Your task to perform on an android device: When is my next meeting? Image 0: 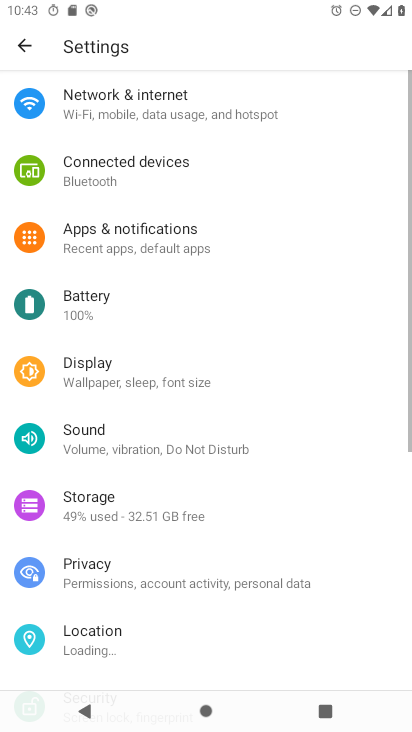
Step 0: press back button
Your task to perform on an android device: When is my next meeting? Image 1: 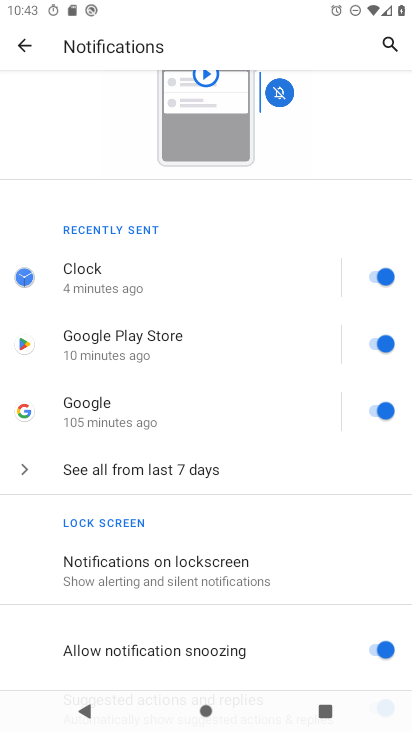
Step 1: press back button
Your task to perform on an android device: When is my next meeting? Image 2: 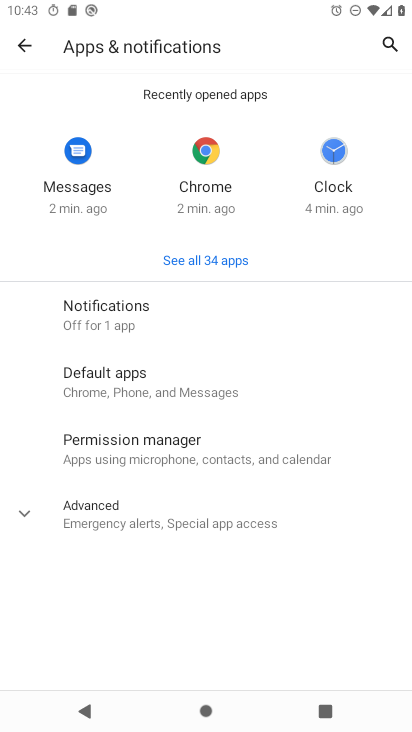
Step 2: press back button
Your task to perform on an android device: When is my next meeting? Image 3: 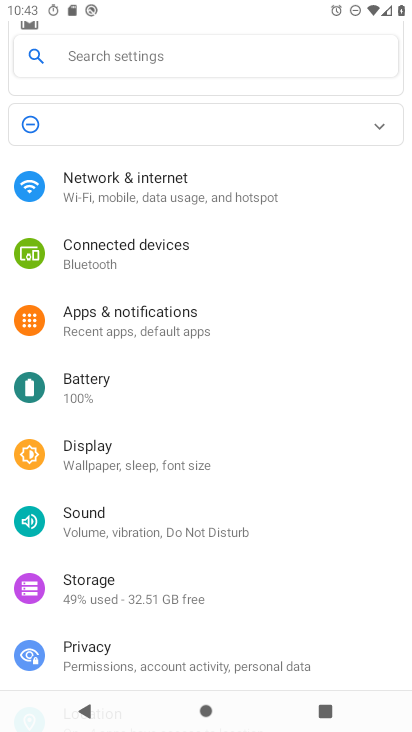
Step 3: press back button
Your task to perform on an android device: When is my next meeting? Image 4: 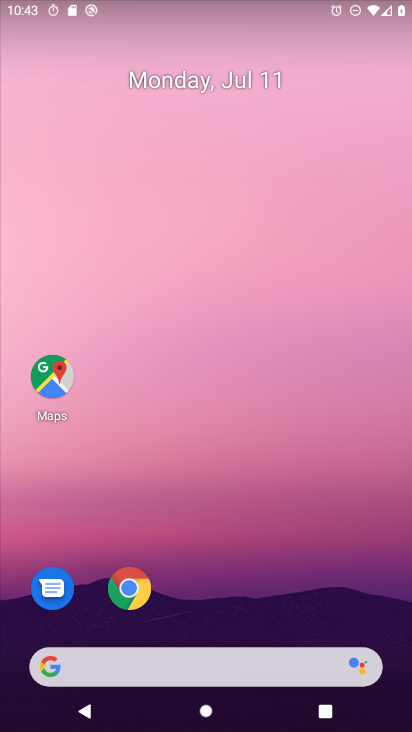
Step 4: drag from (234, 625) to (340, 49)
Your task to perform on an android device: When is my next meeting? Image 5: 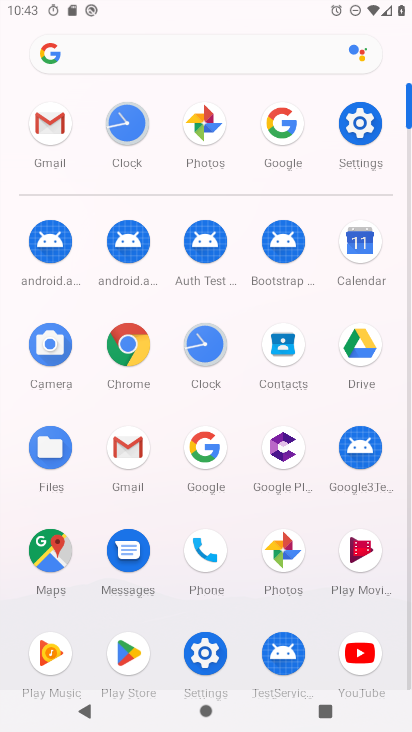
Step 5: click (375, 233)
Your task to perform on an android device: When is my next meeting? Image 6: 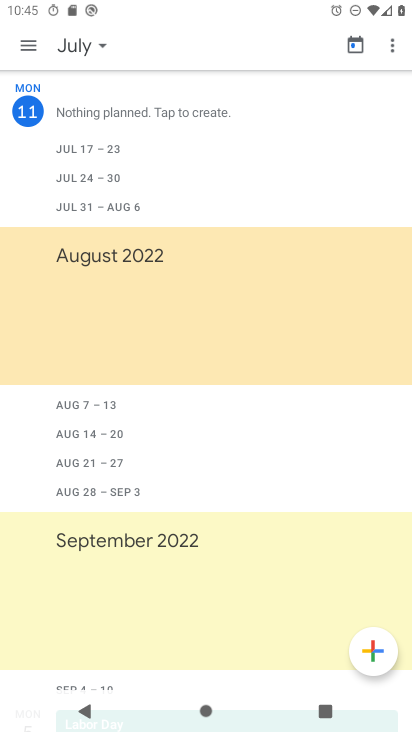
Step 6: task complete